Your task to perform on an android device: Open display settings Image 0: 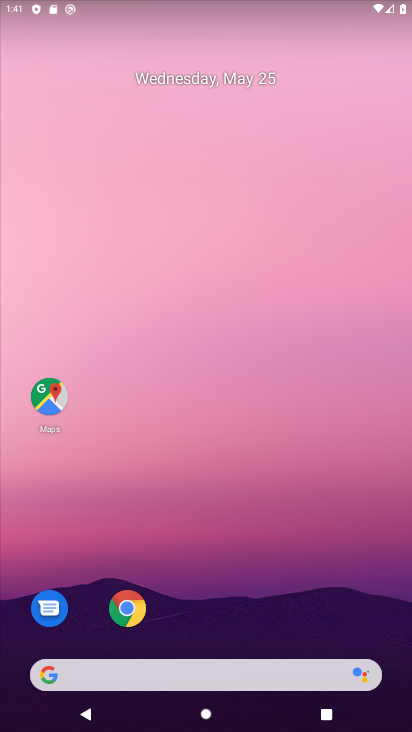
Step 0: drag from (253, 622) to (250, 177)
Your task to perform on an android device: Open display settings Image 1: 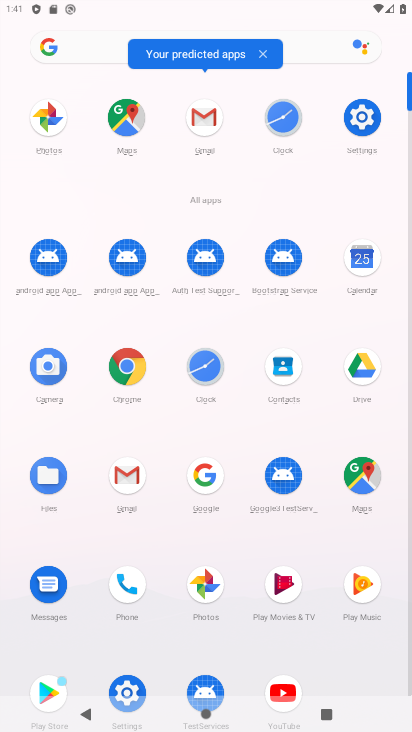
Step 1: click (364, 118)
Your task to perform on an android device: Open display settings Image 2: 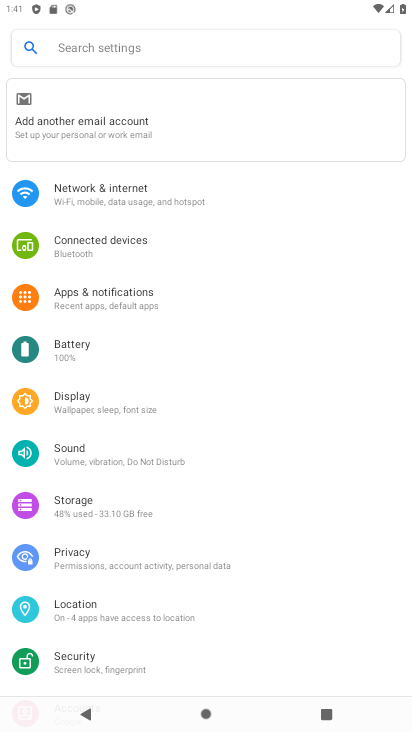
Step 2: click (114, 402)
Your task to perform on an android device: Open display settings Image 3: 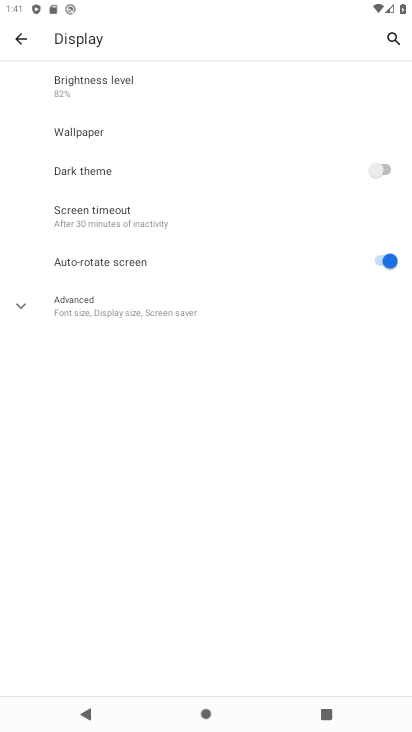
Step 3: task complete